Your task to perform on an android device: Open the phone app and click the voicemail tab. Image 0: 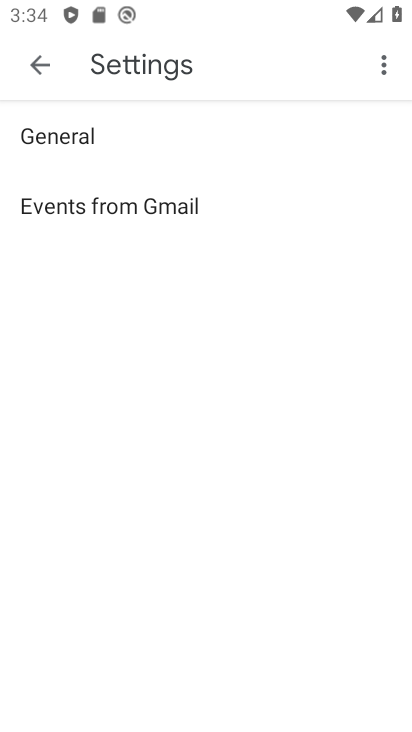
Step 0: press home button
Your task to perform on an android device: Open the phone app and click the voicemail tab. Image 1: 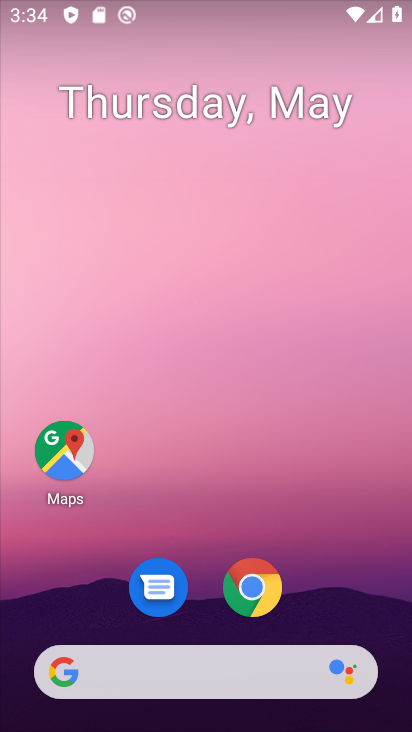
Step 1: drag from (382, 623) to (381, 184)
Your task to perform on an android device: Open the phone app and click the voicemail tab. Image 2: 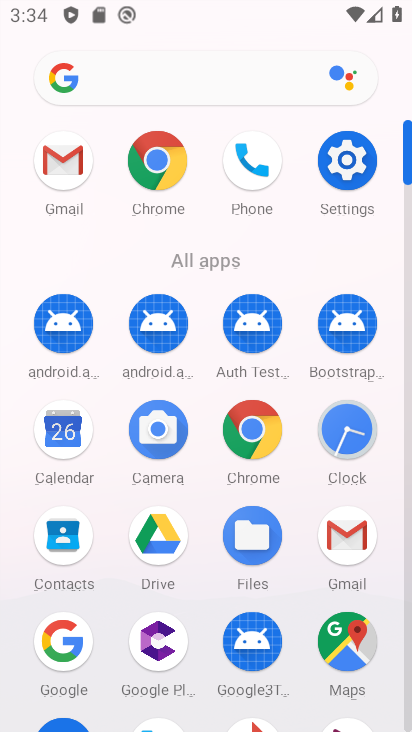
Step 2: click (266, 183)
Your task to perform on an android device: Open the phone app and click the voicemail tab. Image 3: 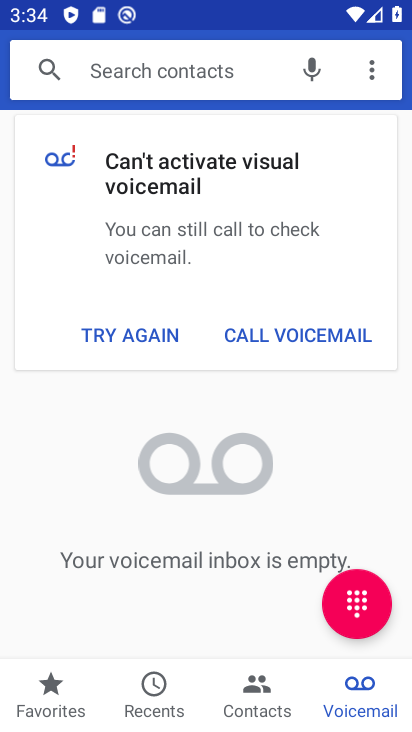
Step 3: task complete